Your task to perform on an android device: check google app version Image 0: 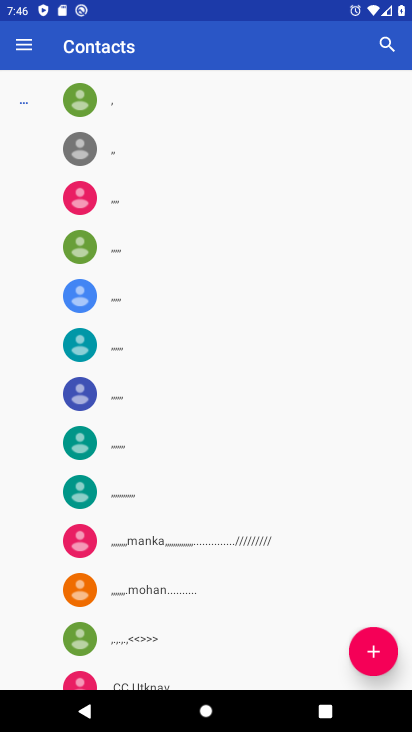
Step 0: press home button
Your task to perform on an android device: check google app version Image 1: 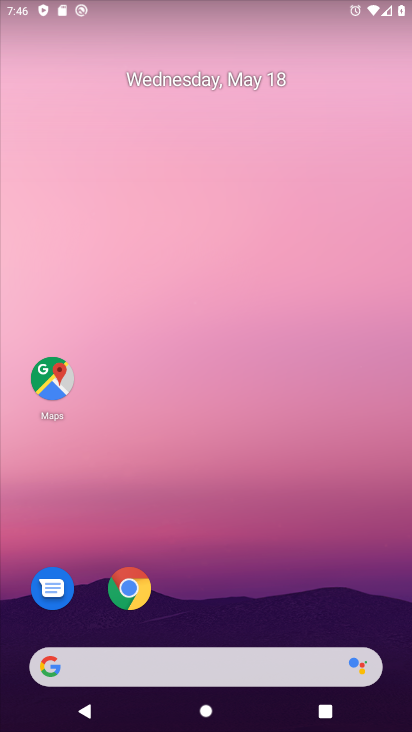
Step 1: click (46, 675)
Your task to perform on an android device: check google app version Image 2: 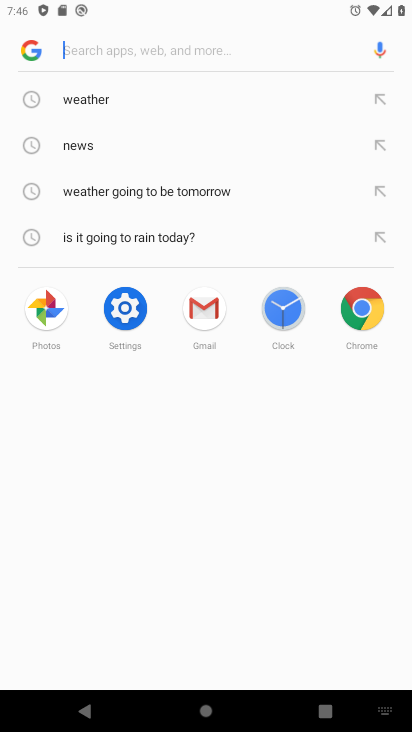
Step 2: click (32, 53)
Your task to perform on an android device: check google app version Image 3: 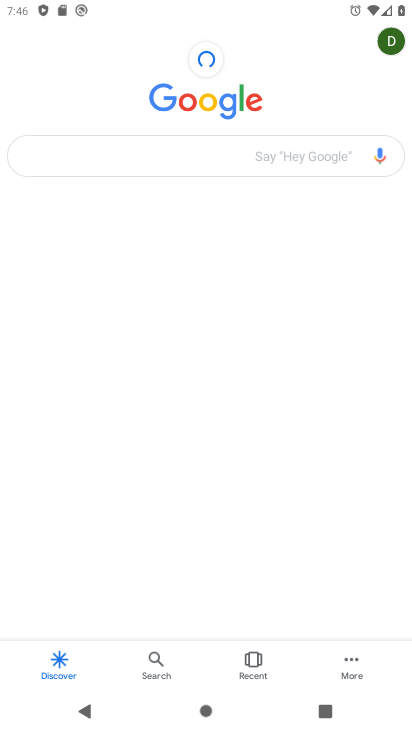
Step 3: click (353, 666)
Your task to perform on an android device: check google app version Image 4: 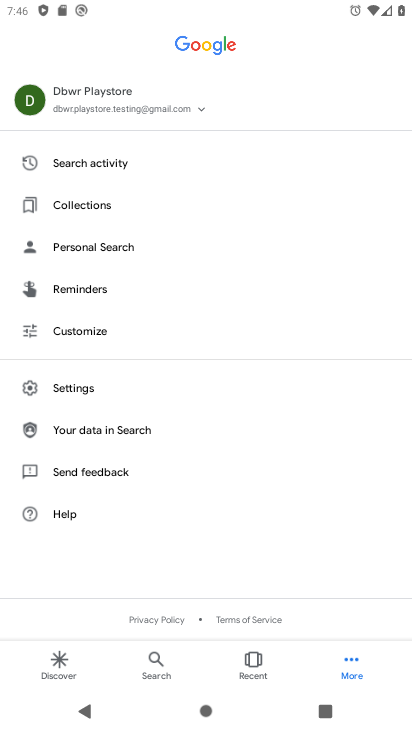
Step 4: click (71, 386)
Your task to perform on an android device: check google app version Image 5: 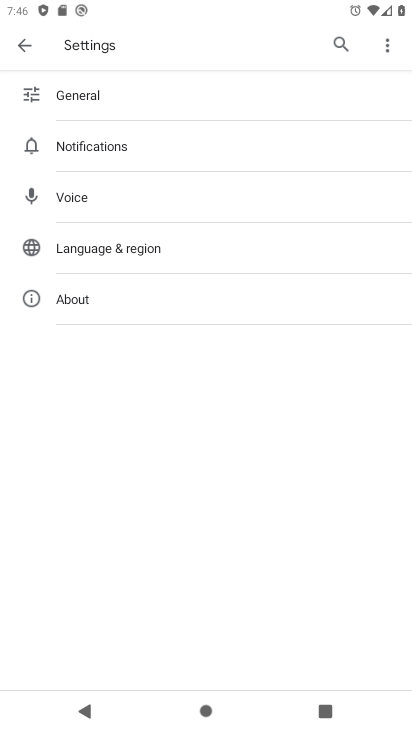
Step 5: click (81, 299)
Your task to perform on an android device: check google app version Image 6: 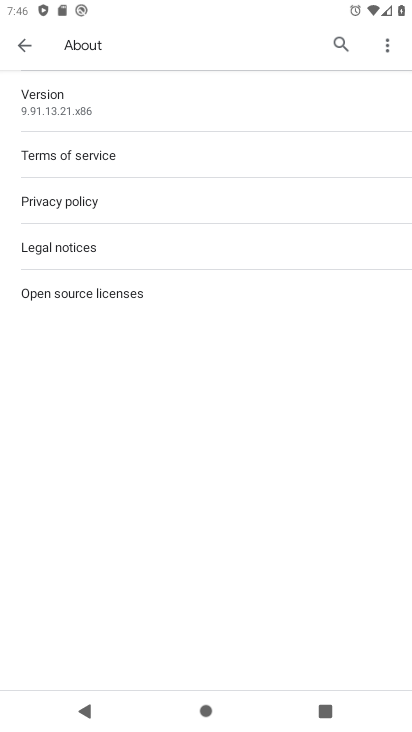
Step 6: task complete